Your task to perform on an android device: Open location settings Image 0: 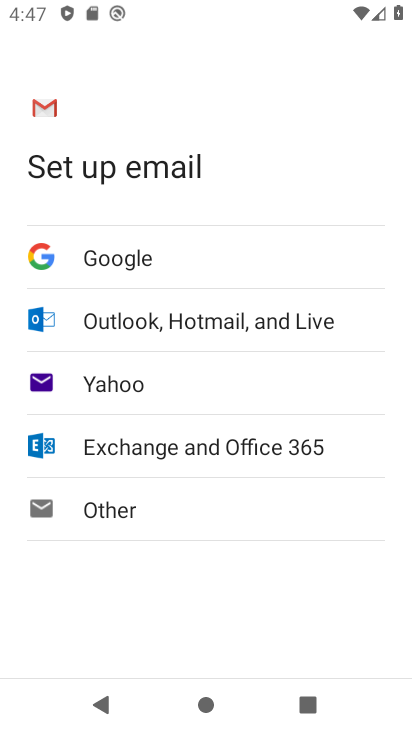
Step 0: press home button
Your task to perform on an android device: Open location settings Image 1: 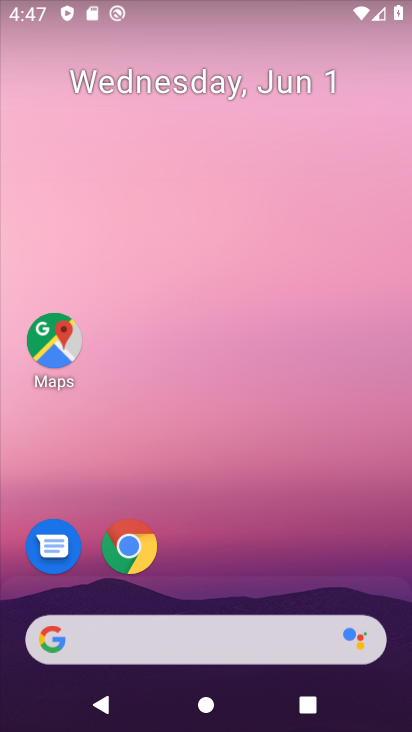
Step 1: drag from (213, 633) to (295, 121)
Your task to perform on an android device: Open location settings Image 2: 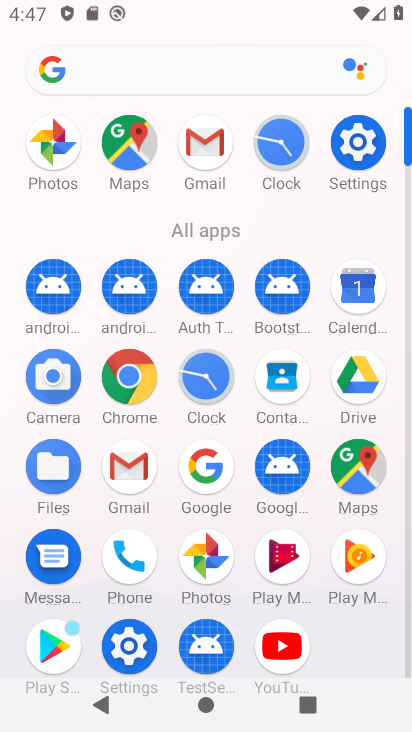
Step 2: drag from (163, 707) to (230, 449)
Your task to perform on an android device: Open location settings Image 3: 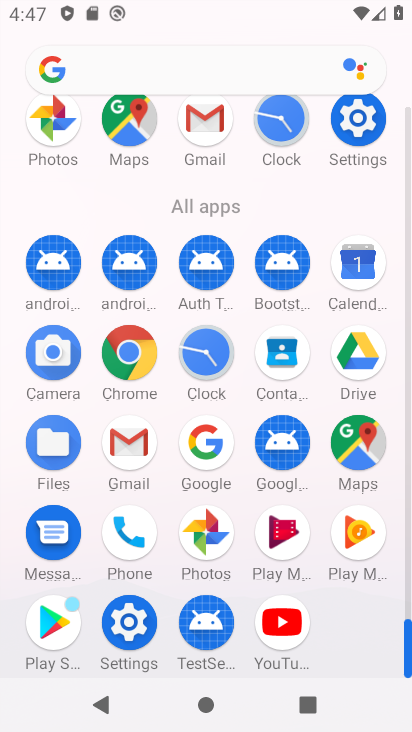
Step 3: click (138, 630)
Your task to perform on an android device: Open location settings Image 4: 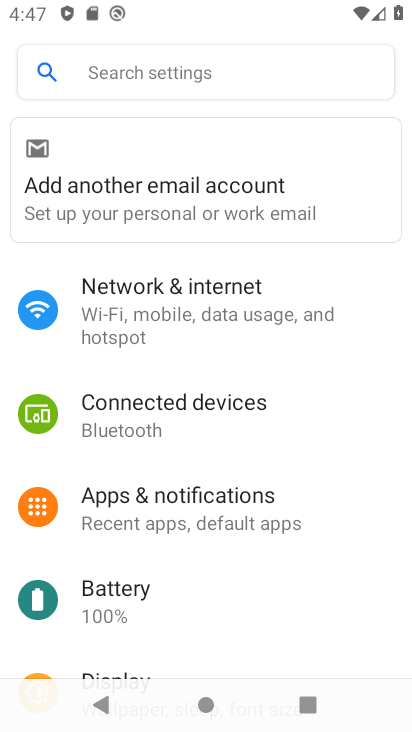
Step 4: drag from (193, 574) to (284, 224)
Your task to perform on an android device: Open location settings Image 5: 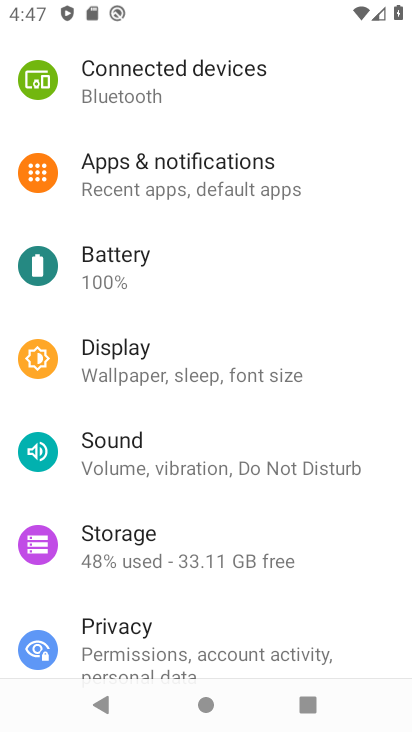
Step 5: drag from (216, 550) to (291, 248)
Your task to perform on an android device: Open location settings Image 6: 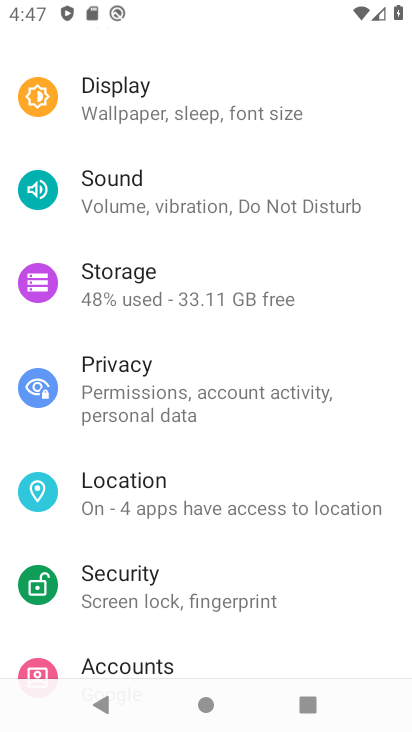
Step 6: click (178, 501)
Your task to perform on an android device: Open location settings Image 7: 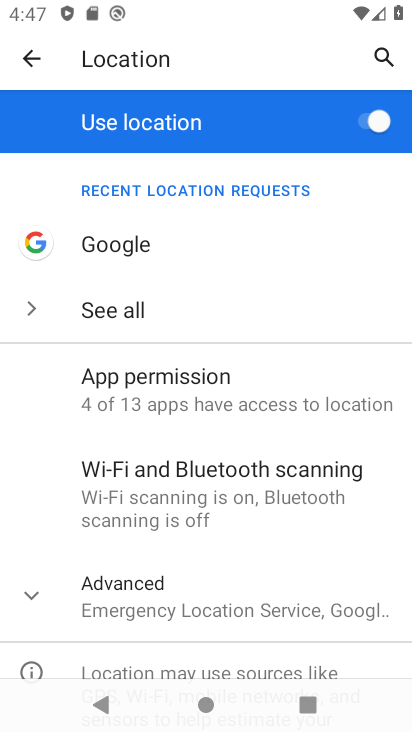
Step 7: task complete